Your task to perform on an android device: What's on my calendar tomorrow? Image 0: 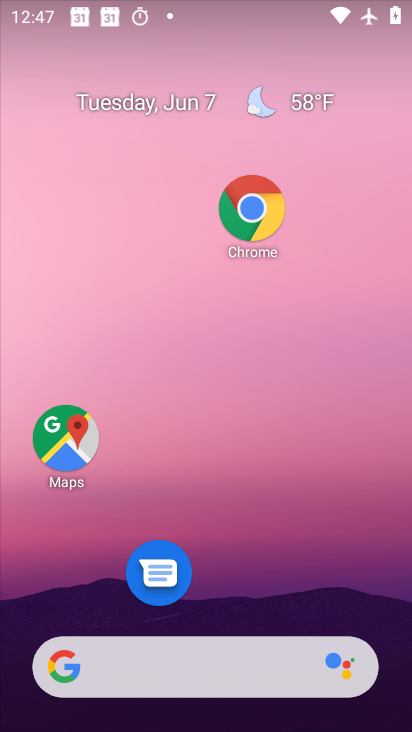
Step 0: drag from (213, 598) to (202, 197)
Your task to perform on an android device: What's on my calendar tomorrow? Image 1: 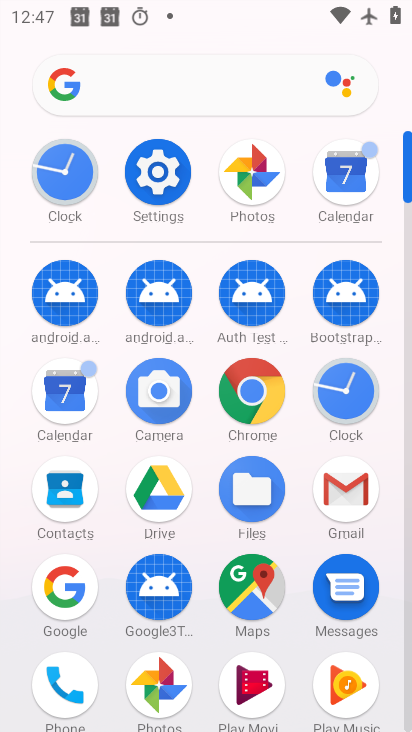
Step 1: click (315, 176)
Your task to perform on an android device: What's on my calendar tomorrow? Image 2: 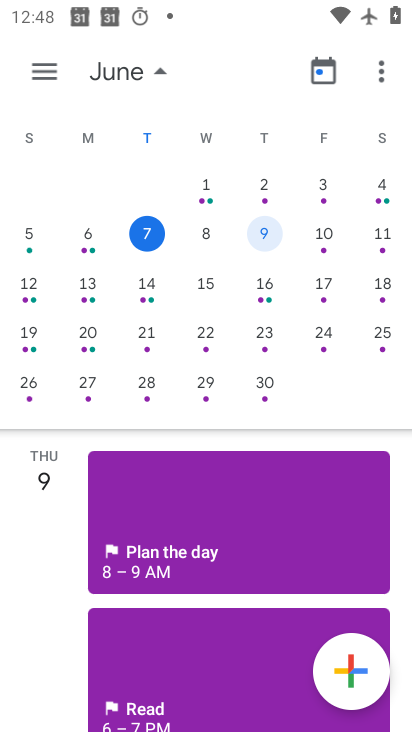
Step 2: click (204, 234)
Your task to perform on an android device: What's on my calendar tomorrow? Image 3: 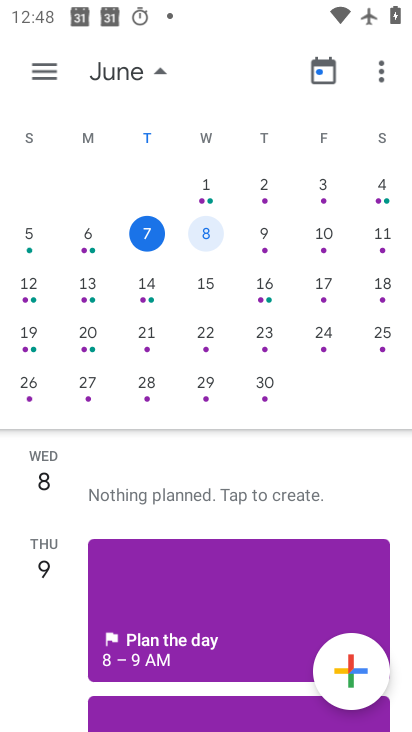
Step 3: task complete